Your task to perform on an android device: change text size in settings app Image 0: 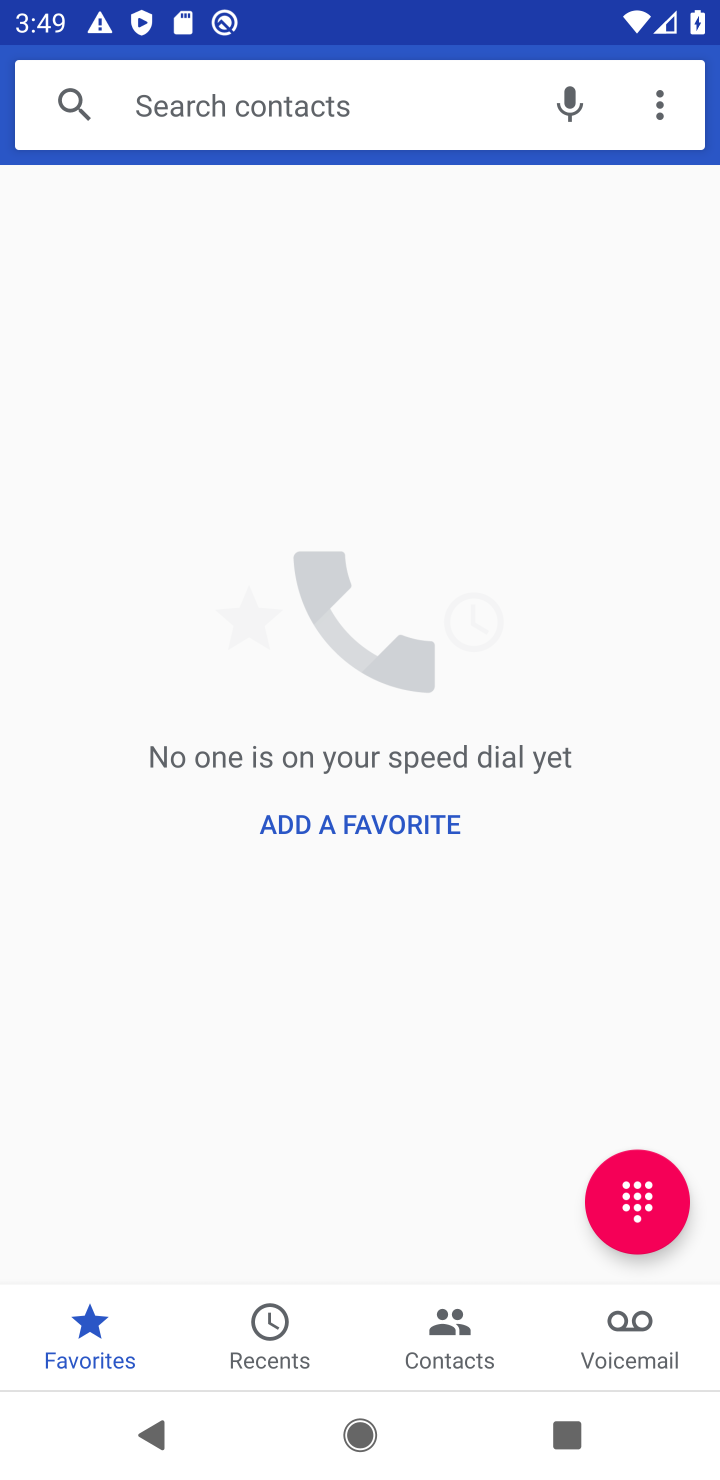
Step 0: press home button
Your task to perform on an android device: change text size in settings app Image 1: 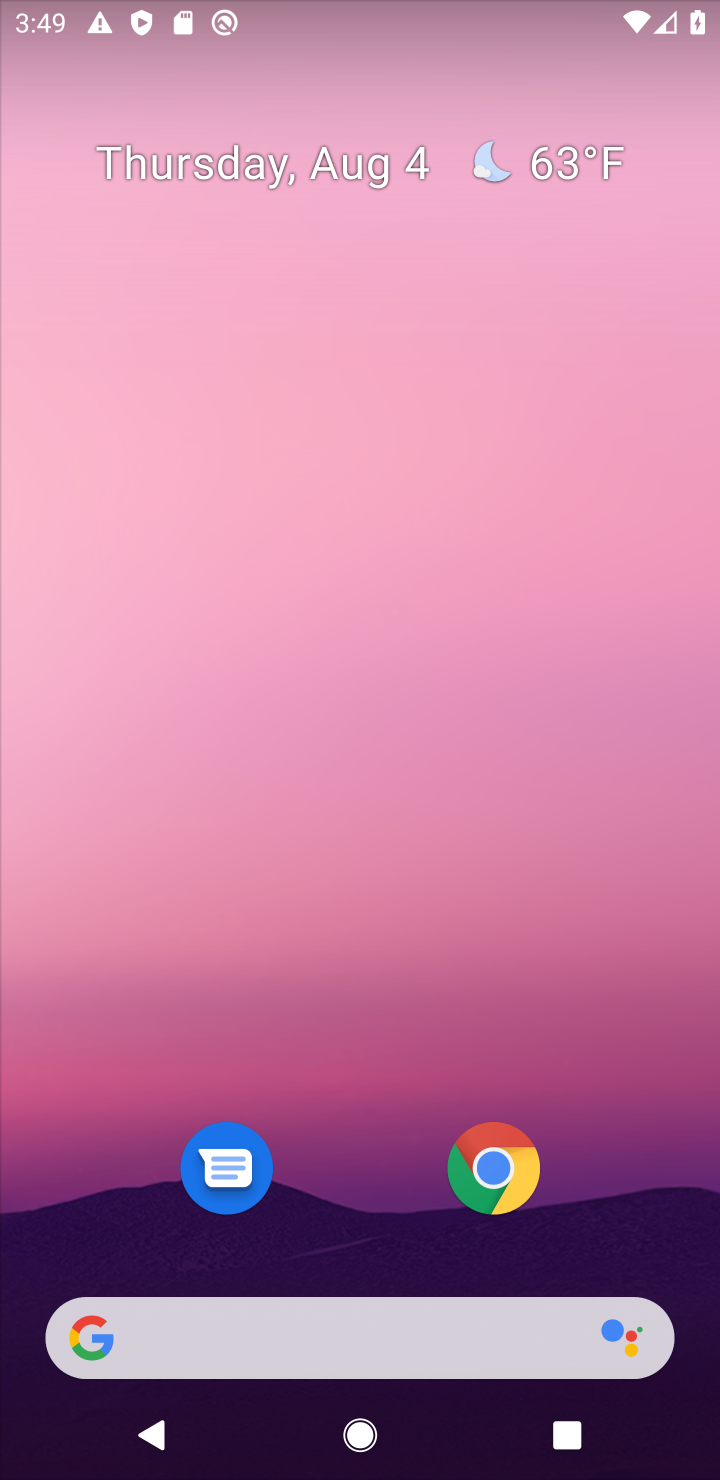
Step 1: drag from (340, 1181) to (595, 939)
Your task to perform on an android device: change text size in settings app Image 2: 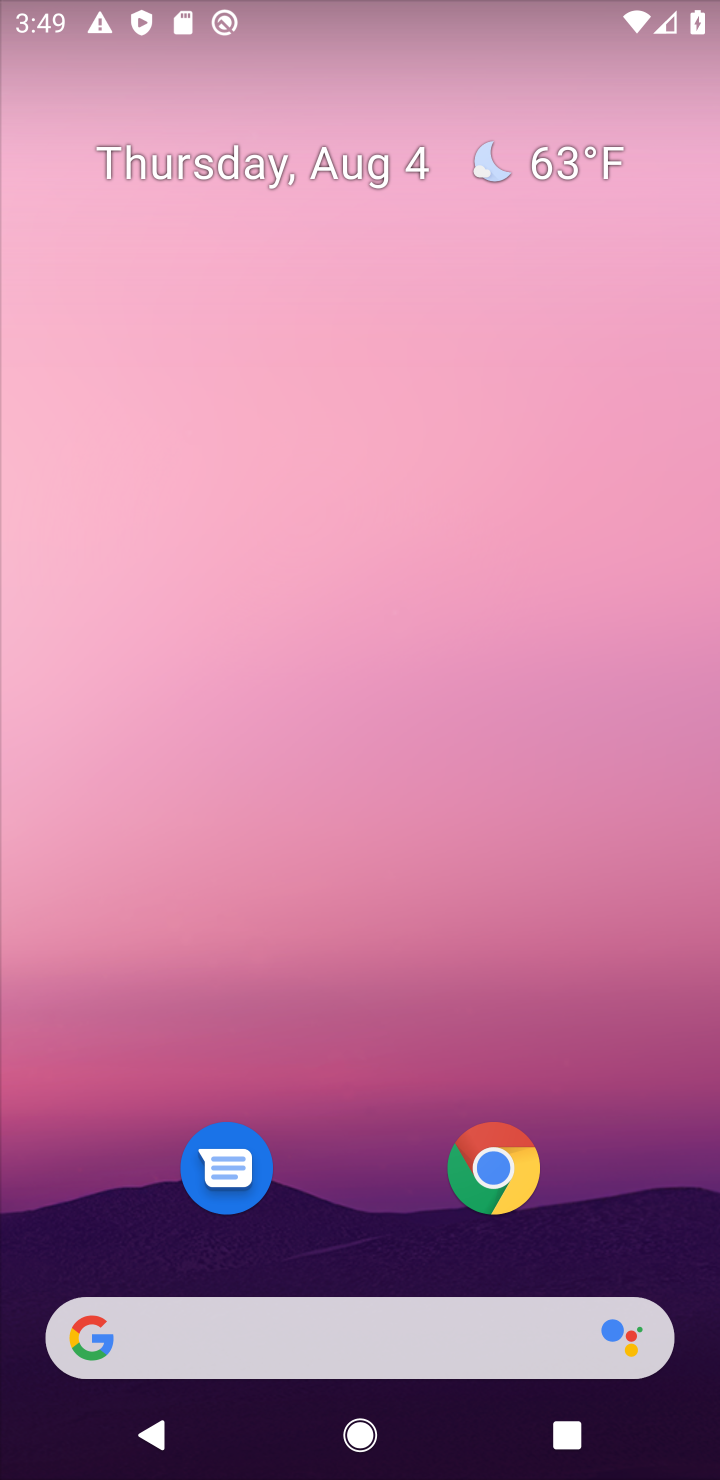
Step 2: drag from (420, 1268) to (398, 8)
Your task to perform on an android device: change text size in settings app Image 3: 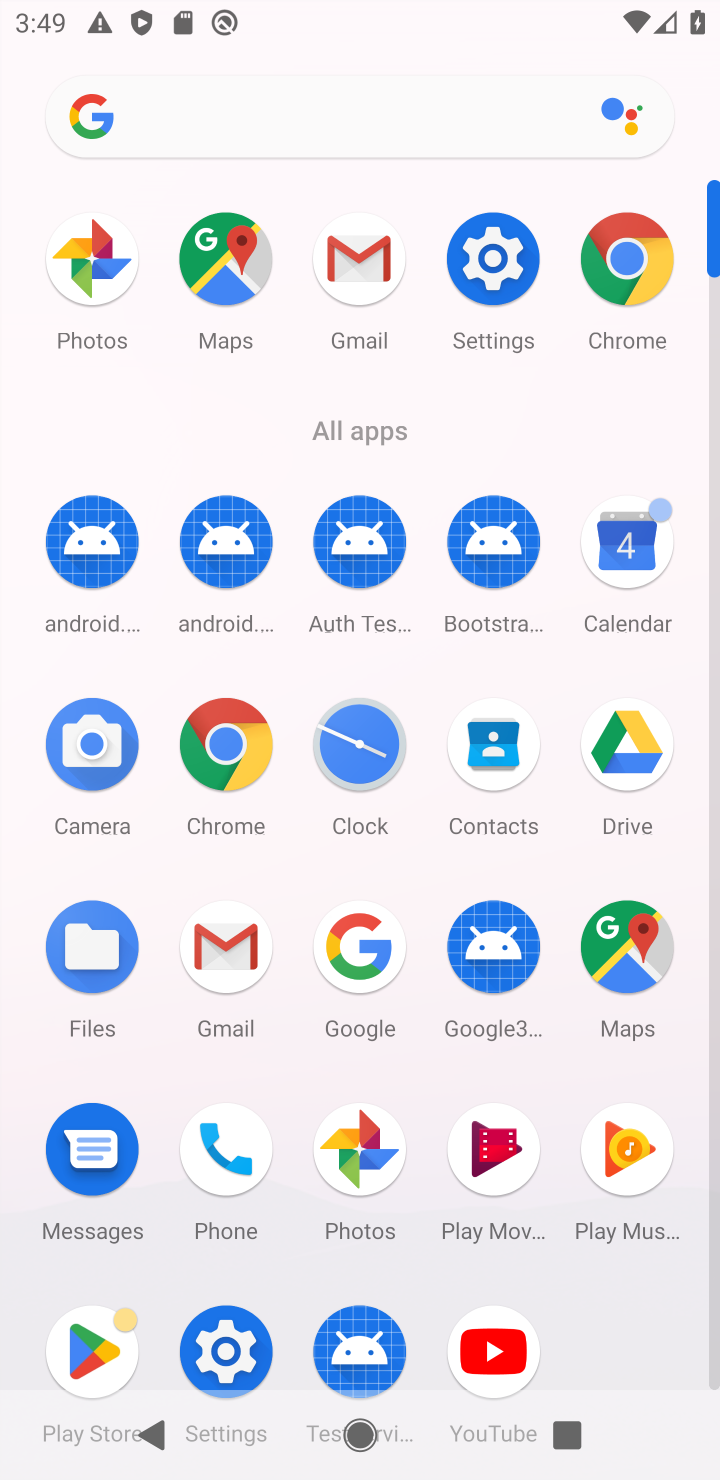
Step 3: click (501, 247)
Your task to perform on an android device: change text size in settings app Image 4: 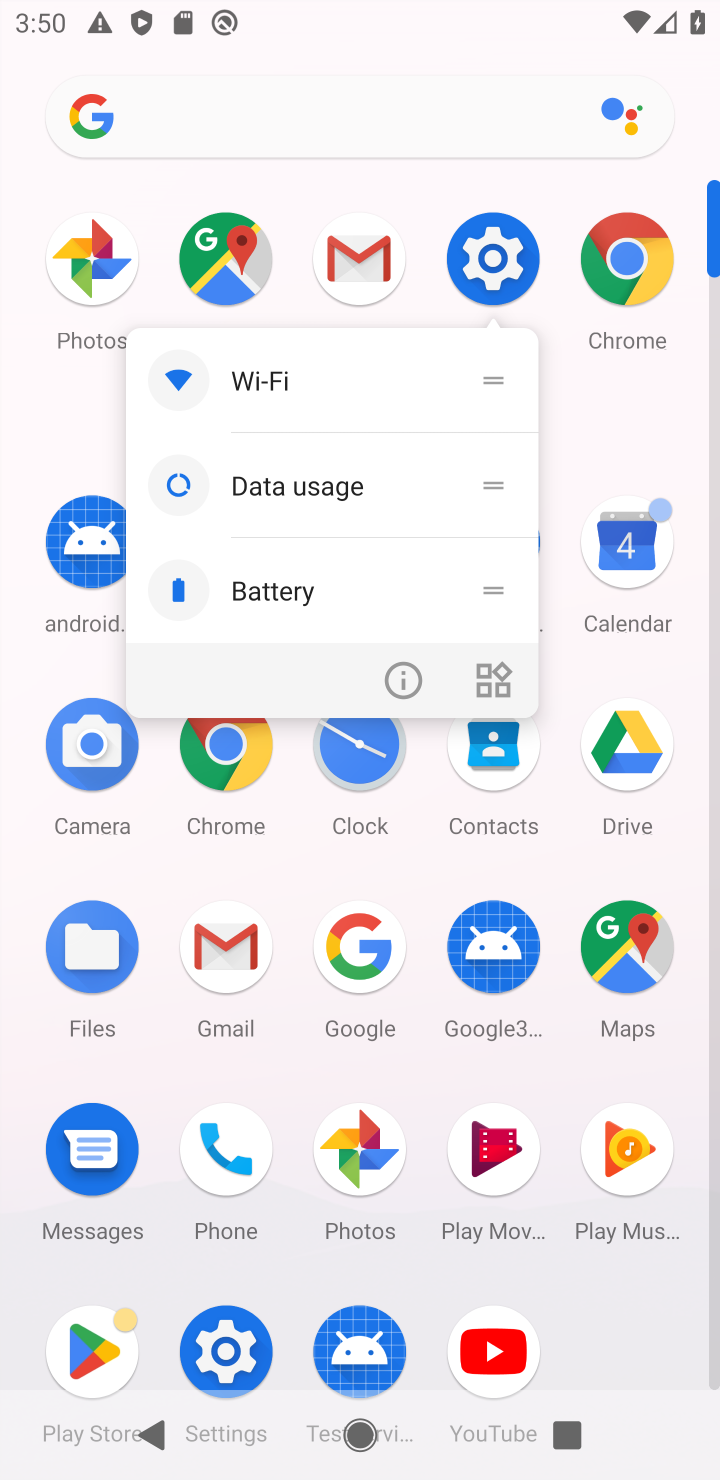
Step 4: click (227, 1309)
Your task to perform on an android device: change text size in settings app Image 5: 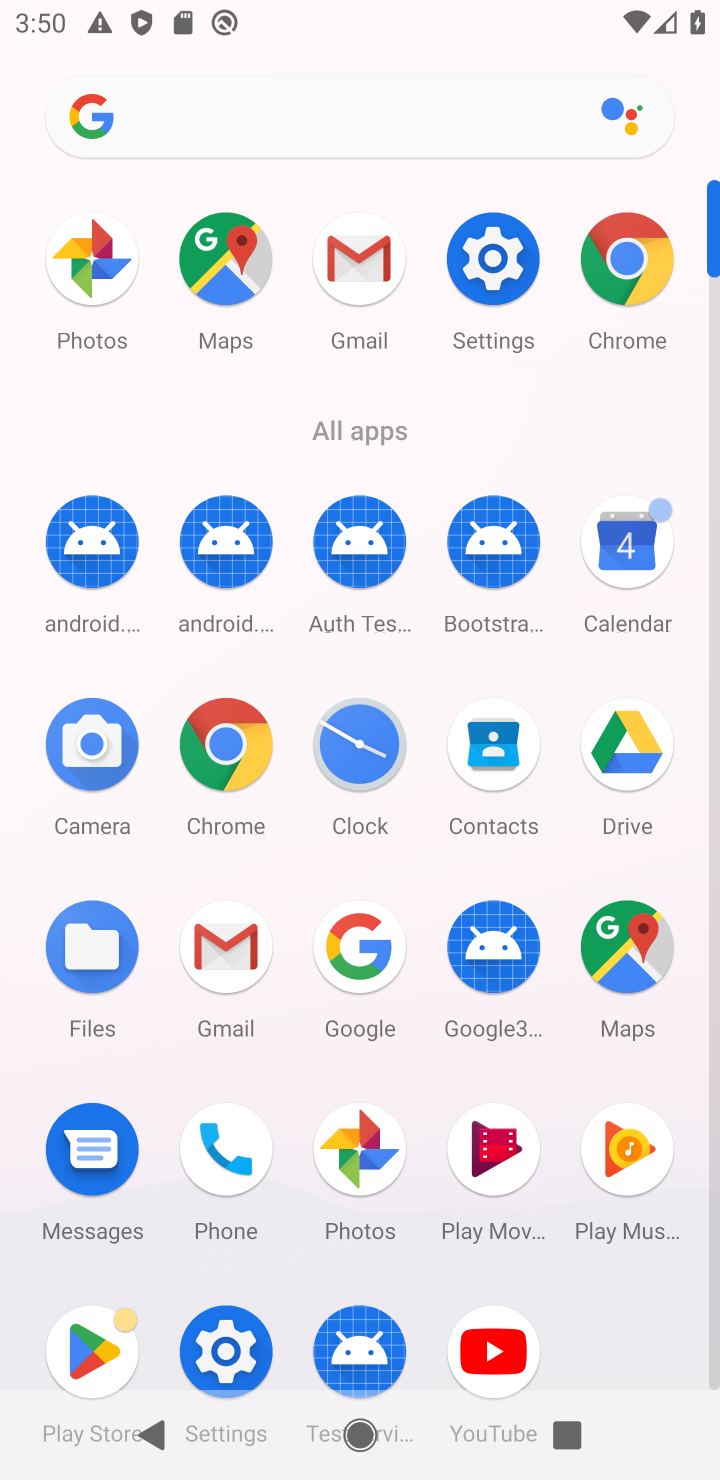
Step 5: click (224, 1372)
Your task to perform on an android device: change text size in settings app Image 6: 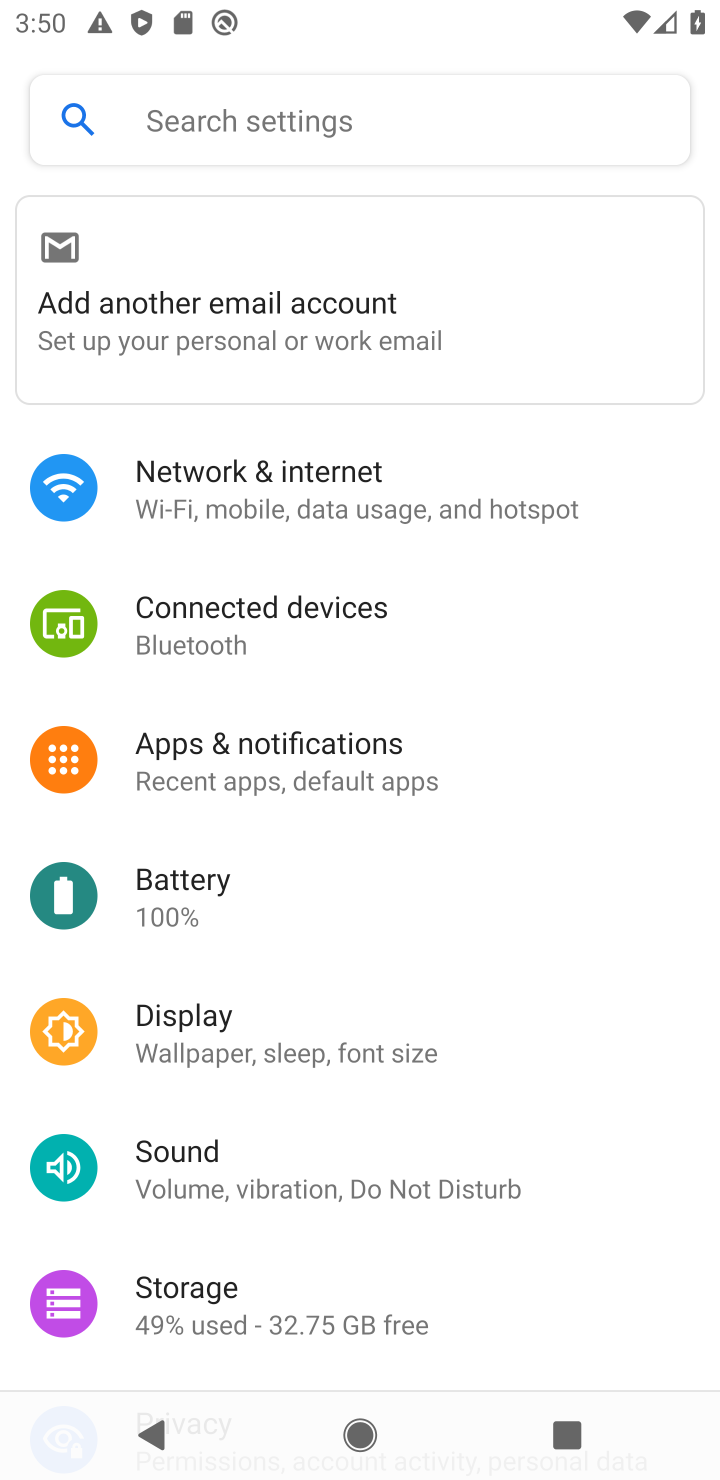
Step 6: click (183, 1025)
Your task to perform on an android device: change text size in settings app Image 7: 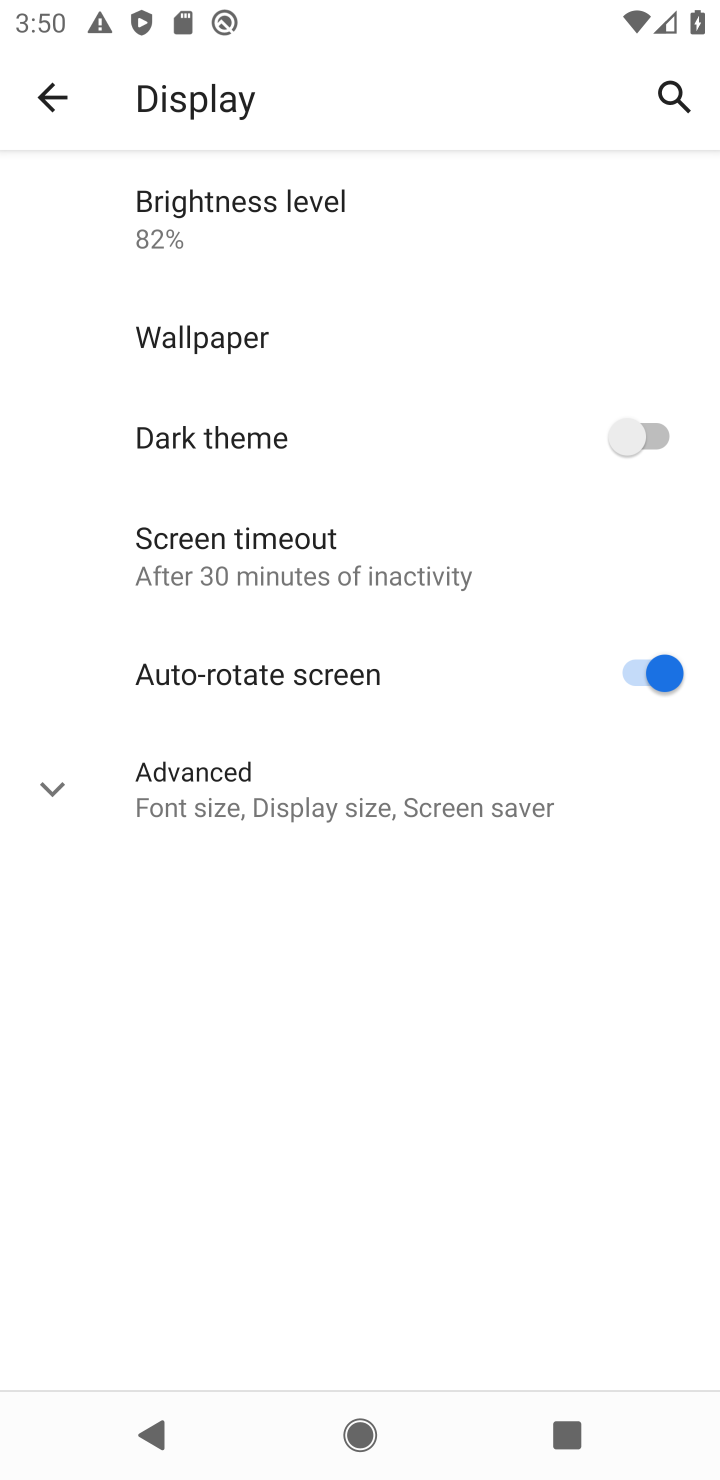
Step 7: click (210, 783)
Your task to perform on an android device: change text size in settings app Image 8: 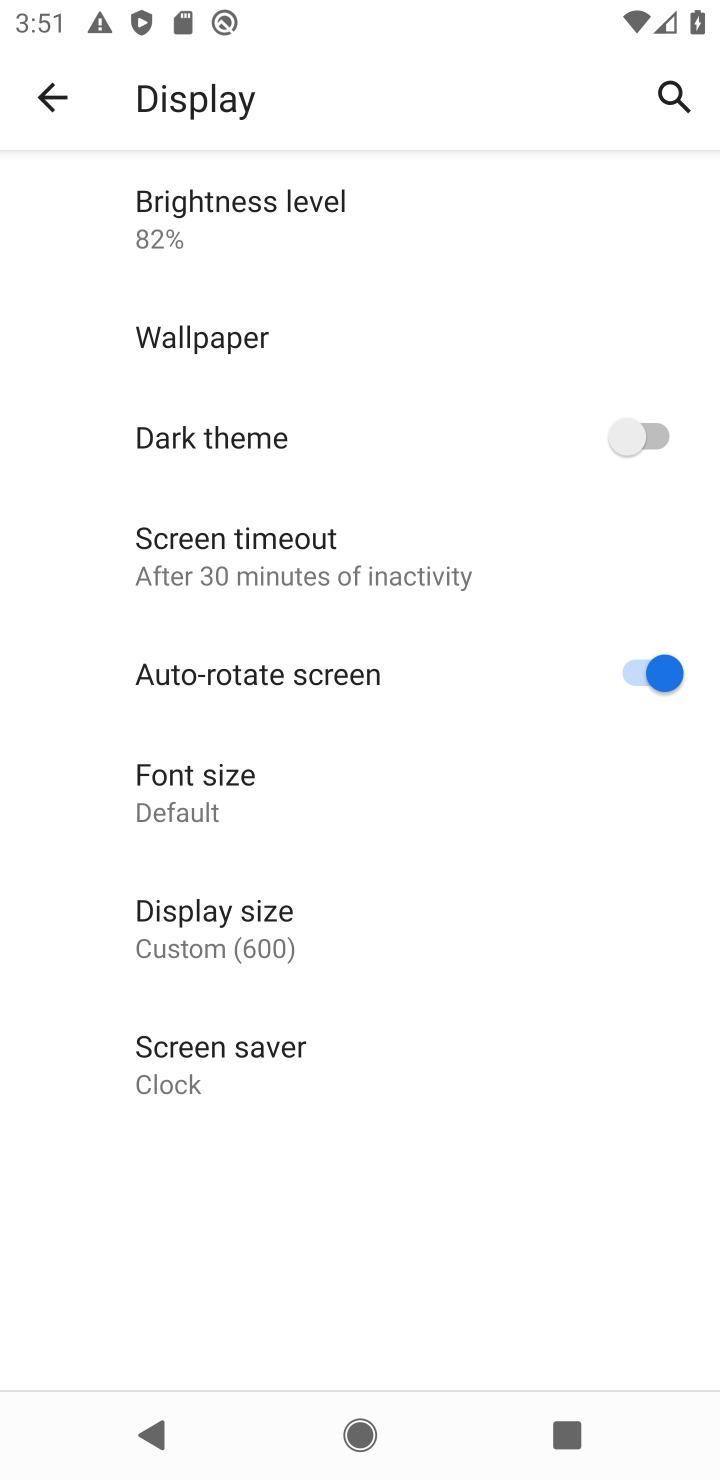
Step 8: click (238, 775)
Your task to perform on an android device: change text size in settings app Image 9: 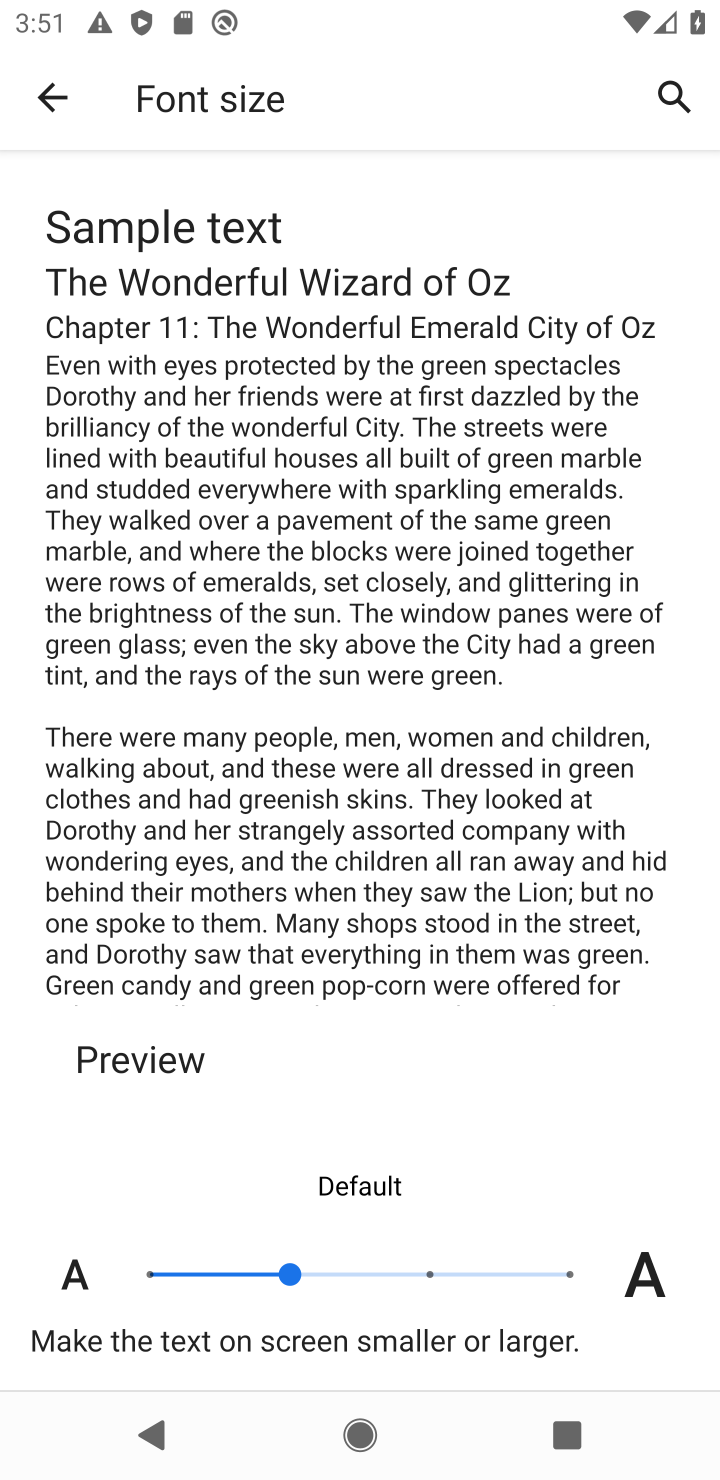
Step 9: click (447, 1263)
Your task to perform on an android device: change text size in settings app Image 10: 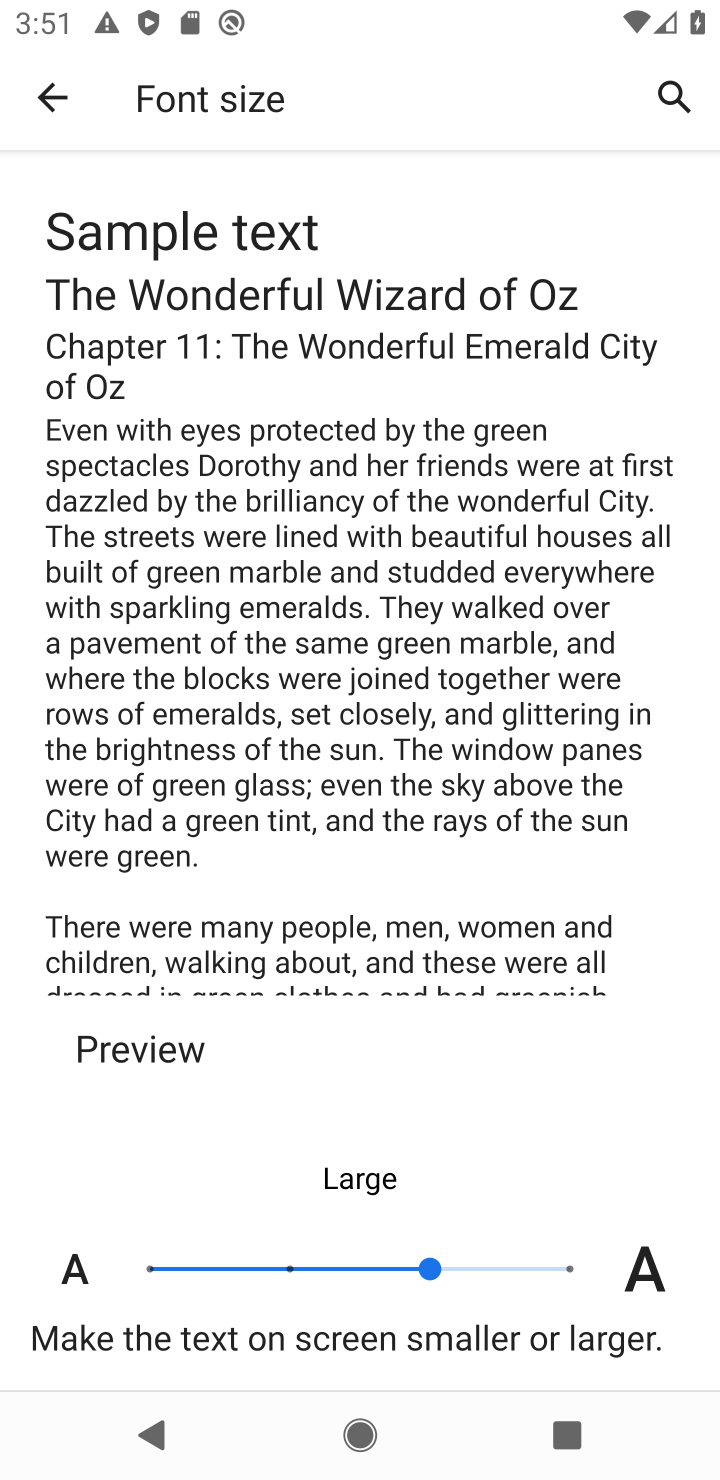
Step 10: task complete